Your task to perform on an android device: Go to Google maps Image 0: 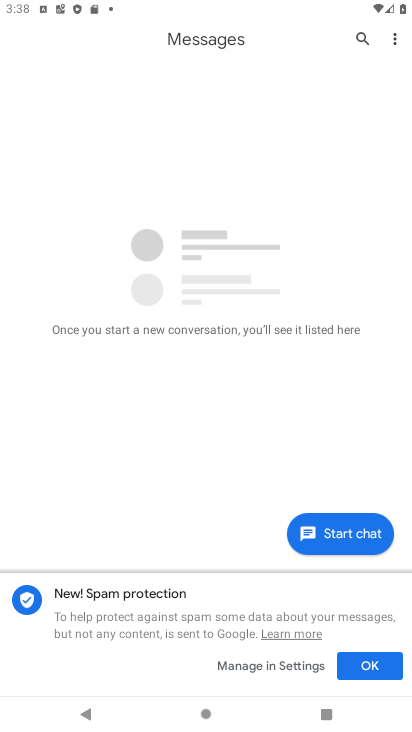
Step 0: press home button
Your task to perform on an android device: Go to Google maps Image 1: 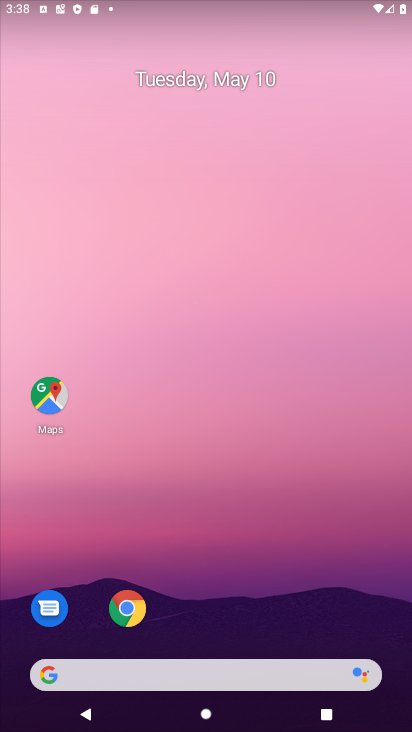
Step 1: click (48, 392)
Your task to perform on an android device: Go to Google maps Image 2: 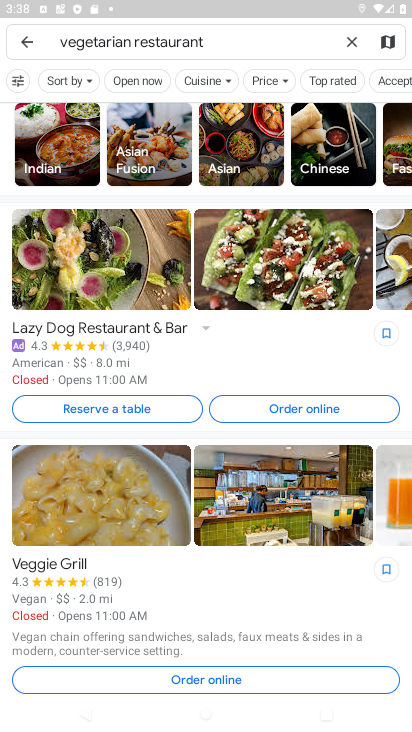
Step 2: click (193, 308)
Your task to perform on an android device: Go to Google maps Image 3: 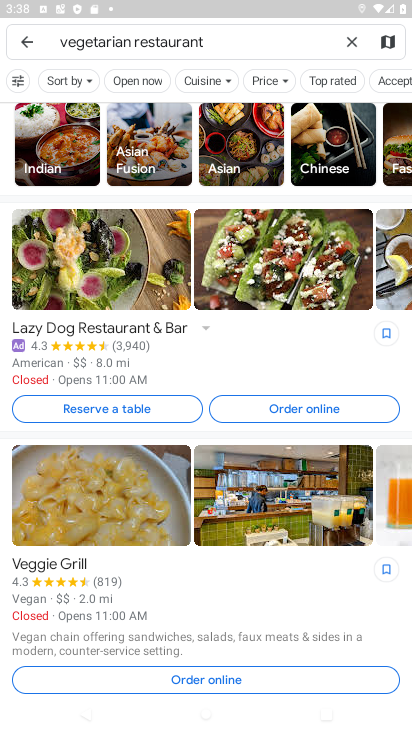
Step 3: click (354, 37)
Your task to perform on an android device: Go to Google maps Image 4: 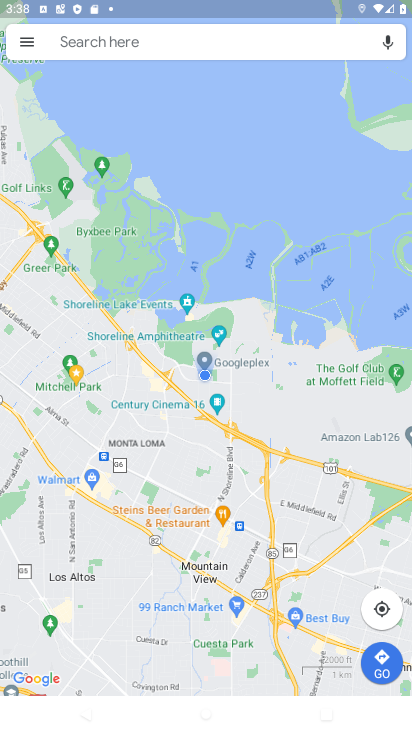
Step 4: task complete